Your task to perform on an android device: toggle pop-ups in chrome Image 0: 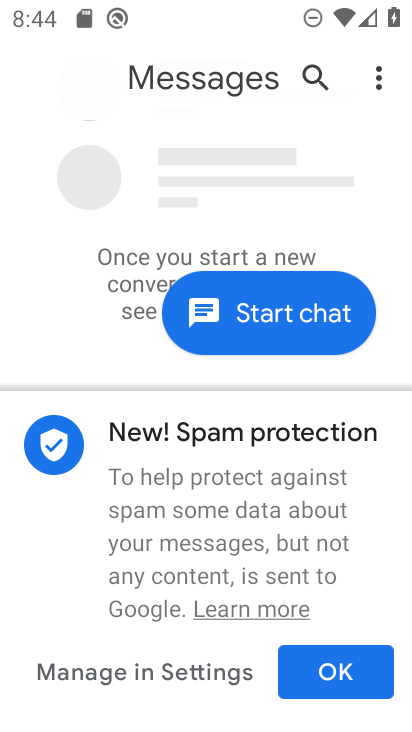
Step 0: press home button
Your task to perform on an android device: toggle pop-ups in chrome Image 1: 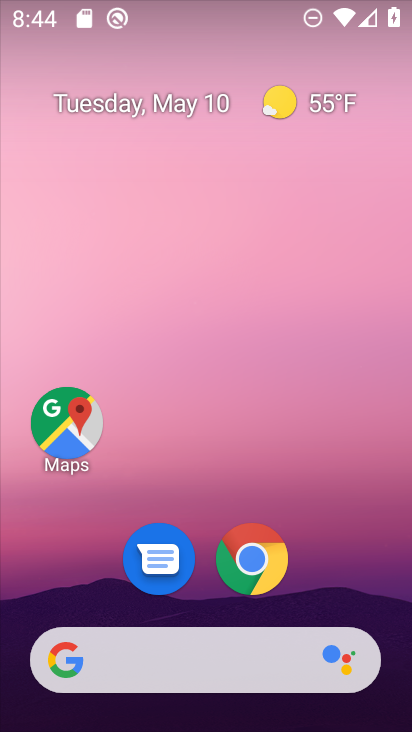
Step 1: click (256, 555)
Your task to perform on an android device: toggle pop-ups in chrome Image 2: 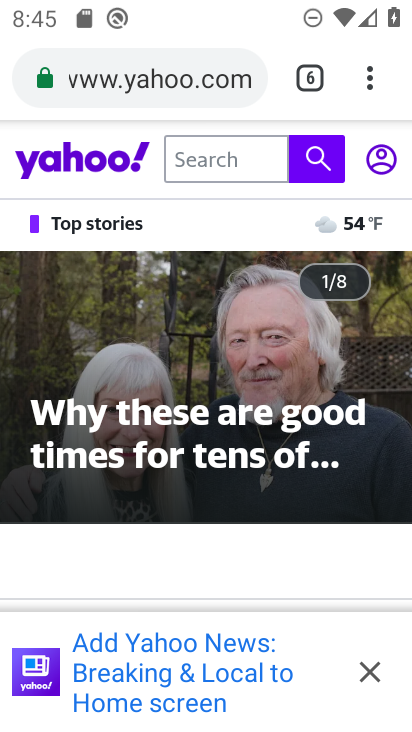
Step 2: click (370, 86)
Your task to perform on an android device: toggle pop-ups in chrome Image 3: 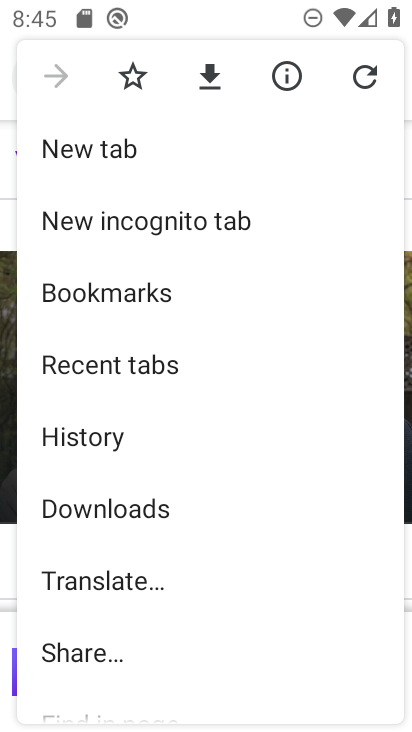
Step 3: drag from (187, 652) to (178, 330)
Your task to perform on an android device: toggle pop-ups in chrome Image 4: 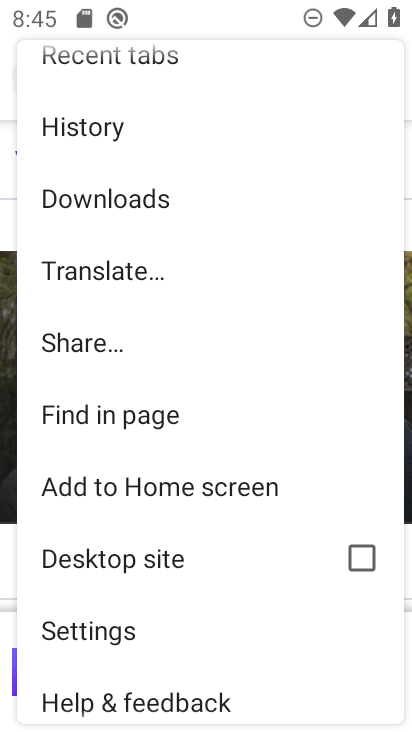
Step 4: click (94, 630)
Your task to perform on an android device: toggle pop-ups in chrome Image 5: 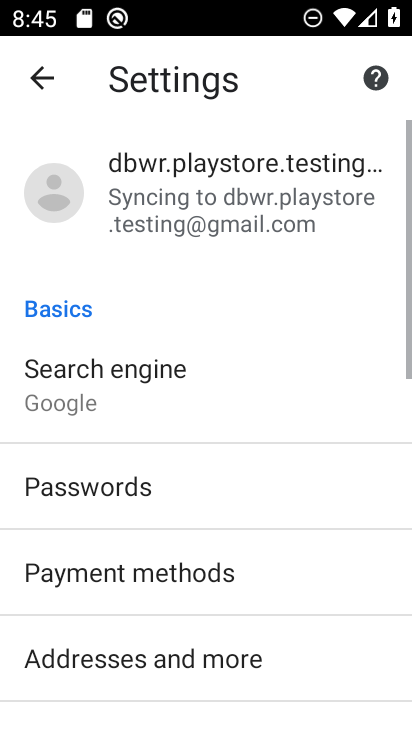
Step 5: drag from (173, 677) to (166, 268)
Your task to perform on an android device: toggle pop-ups in chrome Image 6: 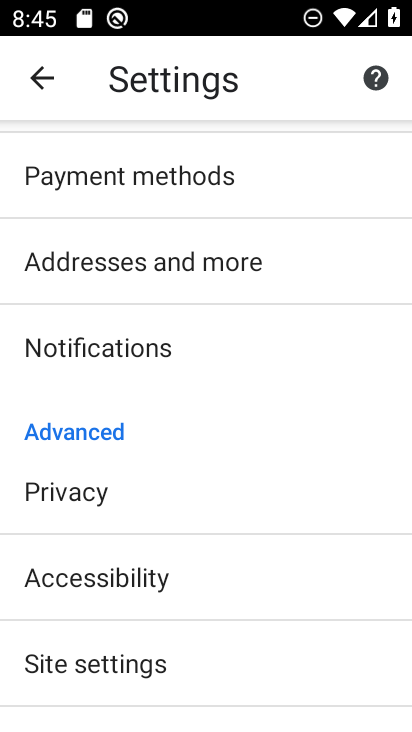
Step 6: drag from (218, 675) to (222, 266)
Your task to perform on an android device: toggle pop-ups in chrome Image 7: 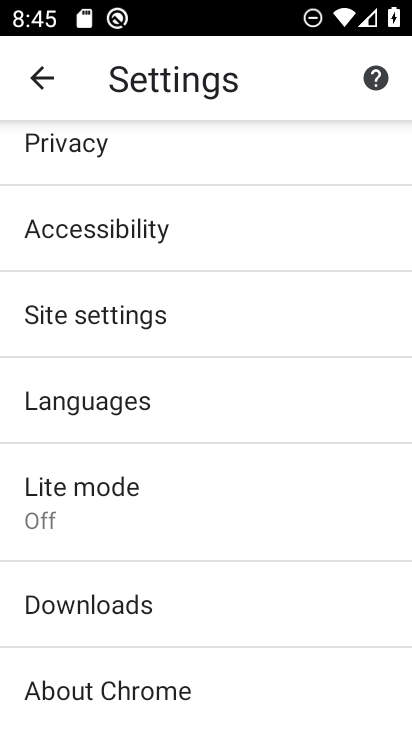
Step 7: click (117, 319)
Your task to perform on an android device: toggle pop-ups in chrome Image 8: 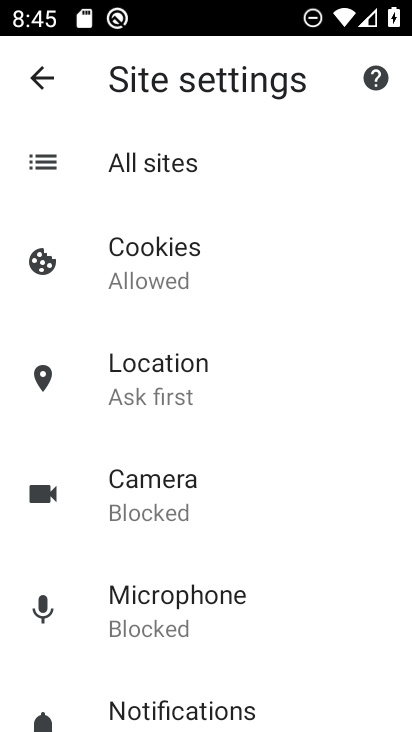
Step 8: drag from (135, 660) to (127, 188)
Your task to perform on an android device: toggle pop-ups in chrome Image 9: 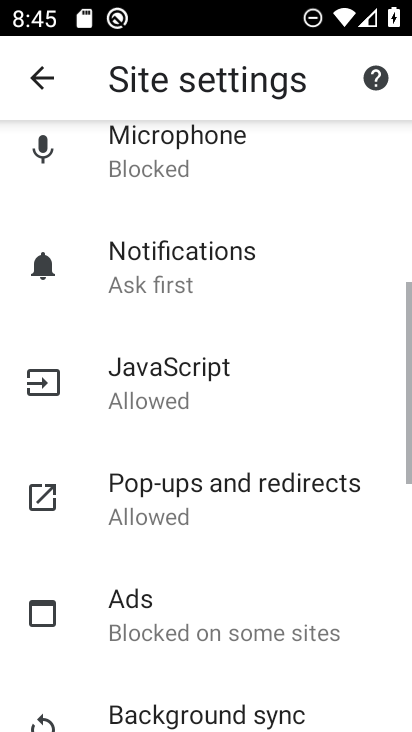
Step 9: click (186, 492)
Your task to perform on an android device: toggle pop-ups in chrome Image 10: 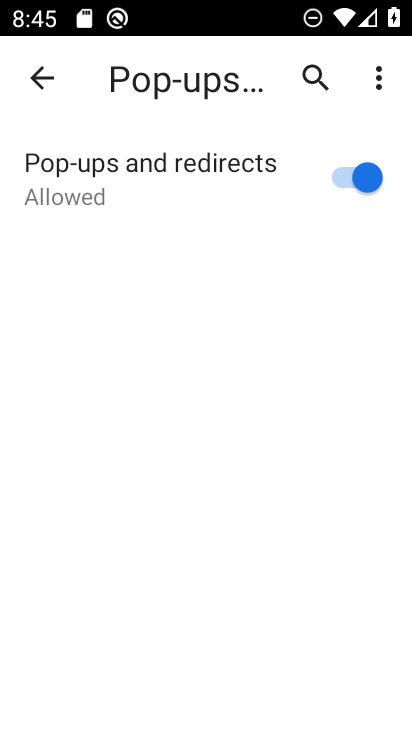
Step 10: click (344, 178)
Your task to perform on an android device: toggle pop-ups in chrome Image 11: 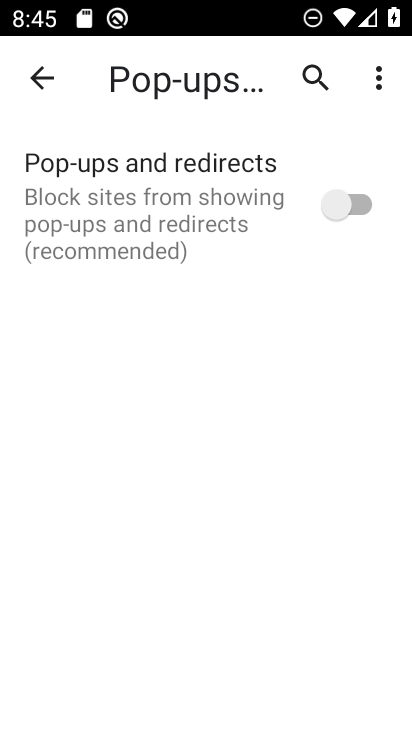
Step 11: task complete